Your task to perform on an android device: turn notification dots off Image 0: 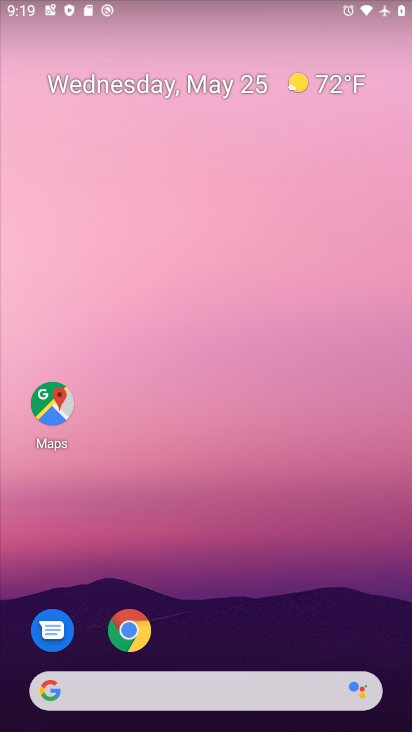
Step 0: drag from (215, 649) to (222, 201)
Your task to perform on an android device: turn notification dots off Image 1: 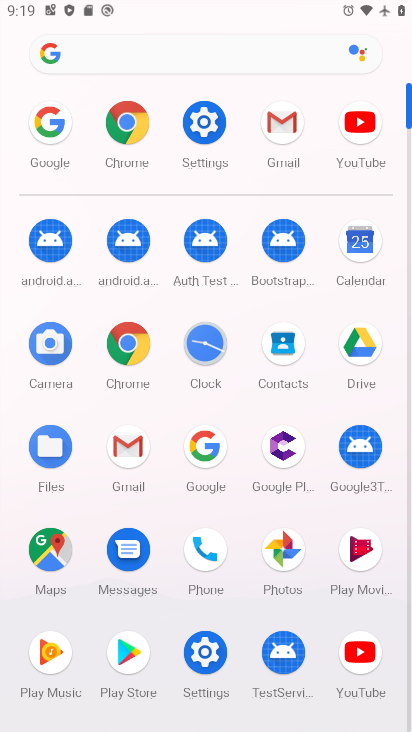
Step 1: click (212, 143)
Your task to perform on an android device: turn notification dots off Image 2: 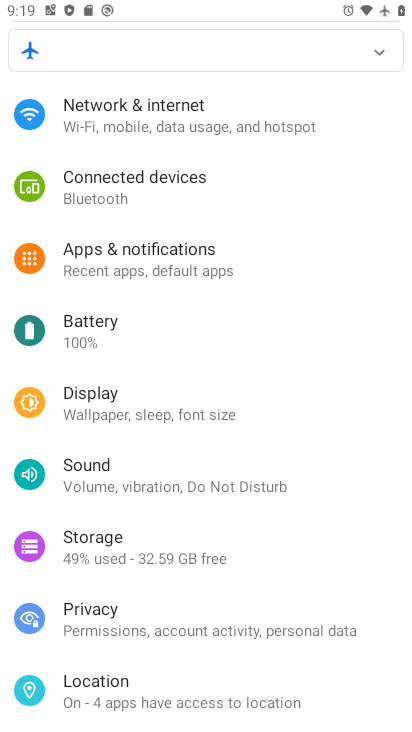
Step 2: click (202, 258)
Your task to perform on an android device: turn notification dots off Image 3: 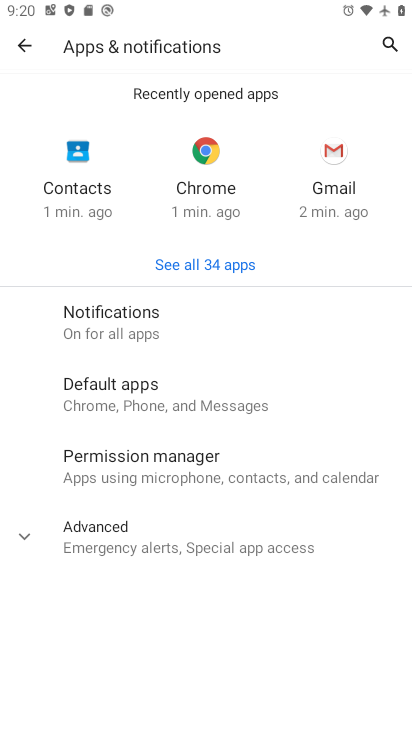
Step 3: click (180, 332)
Your task to perform on an android device: turn notification dots off Image 4: 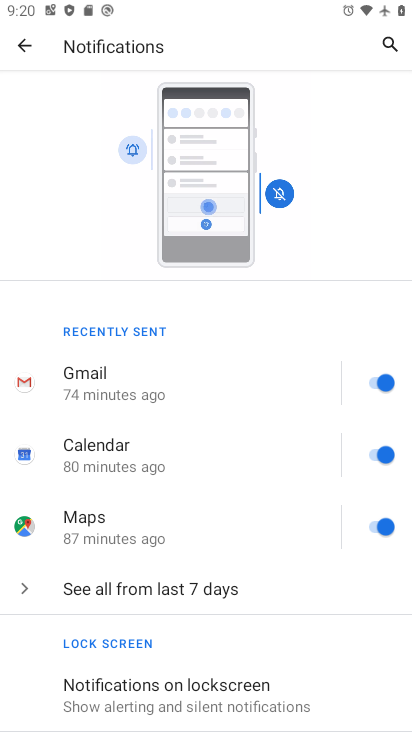
Step 4: drag from (236, 644) to (252, 235)
Your task to perform on an android device: turn notification dots off Image 5: 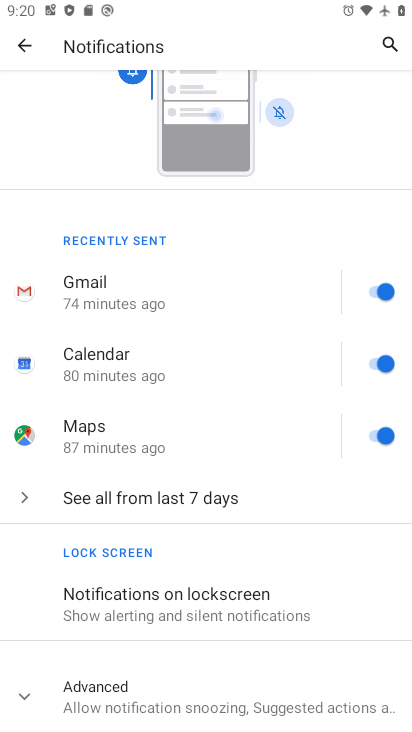
Step 5: drag from (235, 637) to (237, 321)
Your task to perform on an android device: turn notification dots off Image 6: 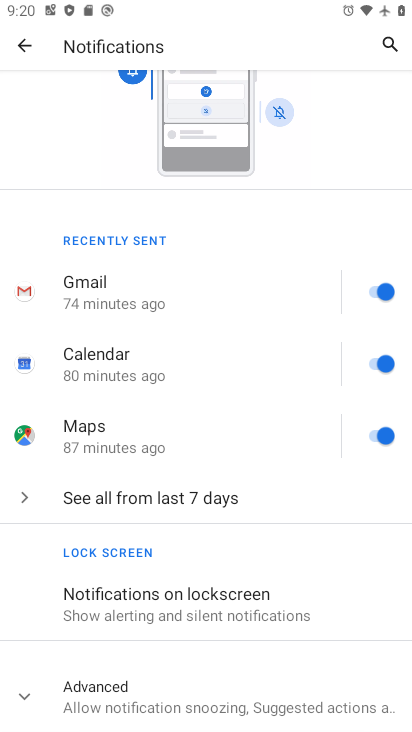
Step 6: click (216, 680)
Your task to perform on an android device: turn notification dots off Image 7: 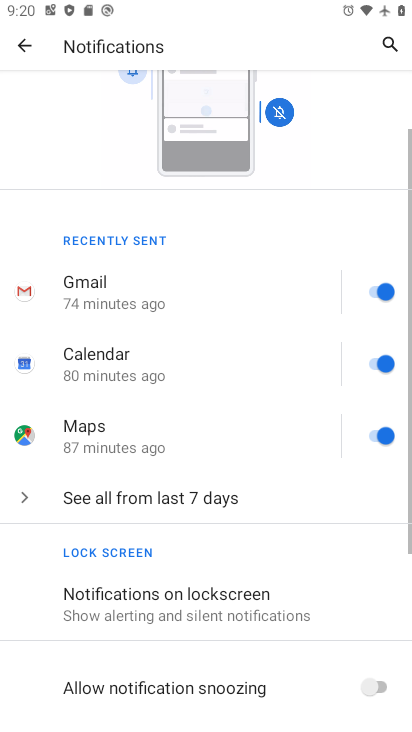
Step 7: task complete